Your task to perform on an android device: What is the recent news? Image 0: 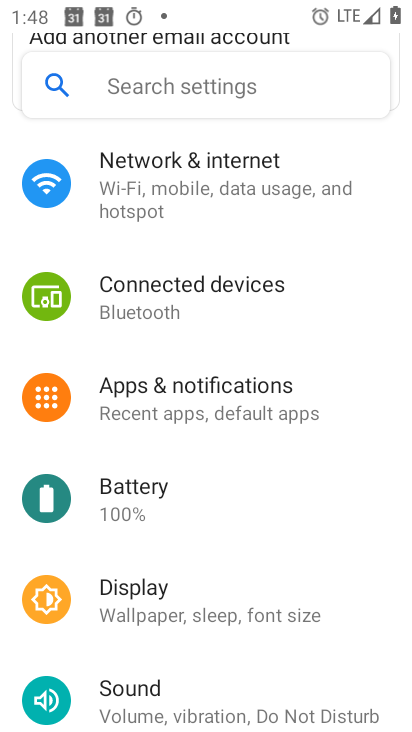
Step 0: press home button
Your task to perform on an android device: What is the recent news? Image 1: 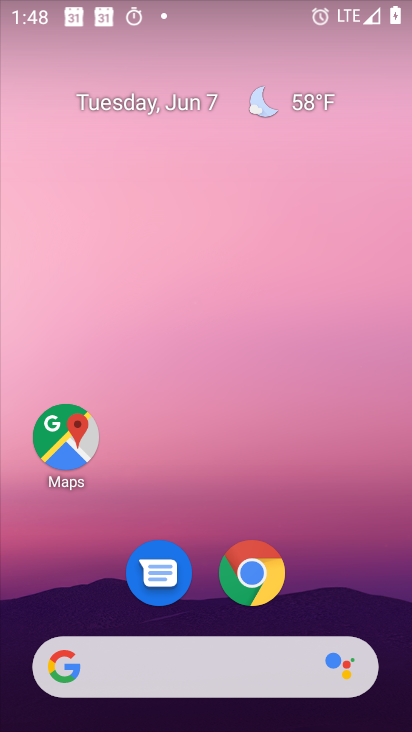
Step 1: click (250, 570)
Your task to perform on an android device: What is the recent news? Image 2: 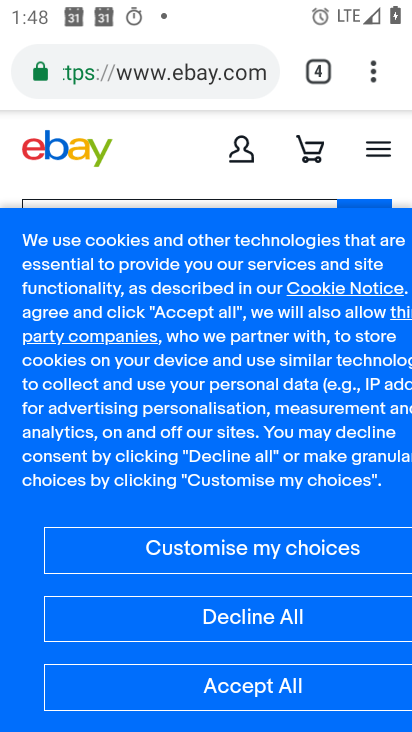
Step 2: click (137, 80)
Your task to perform on an android device: What is the recent news? Image 3: 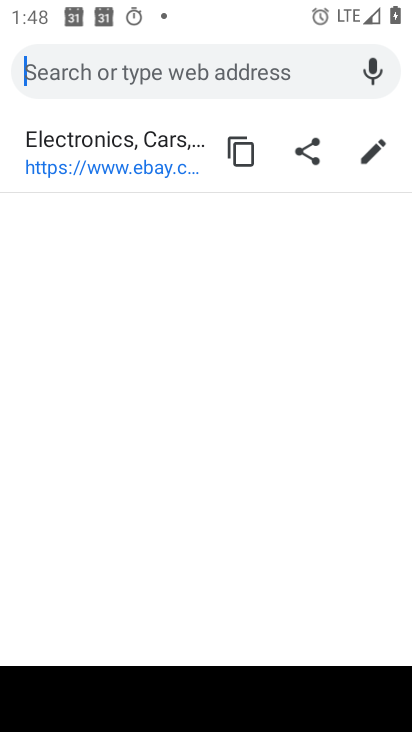
Step 3: type "What is the recent news?"
Your task to perform on an android device: What is the recent news? Image 4: 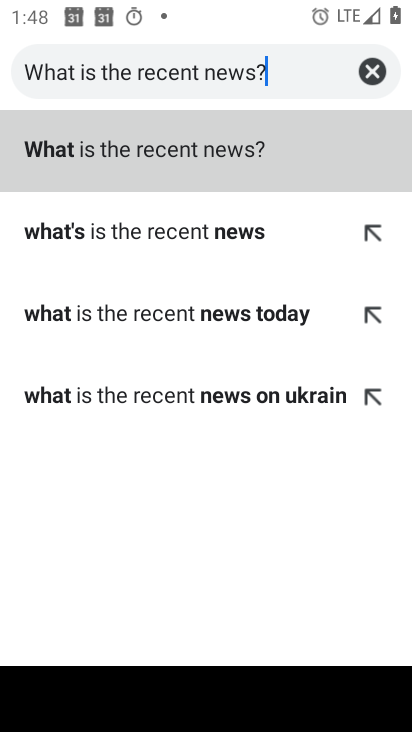
Step 4: click (151, 149)
Your task to perform on an android device: What is the recent news? Image 5: 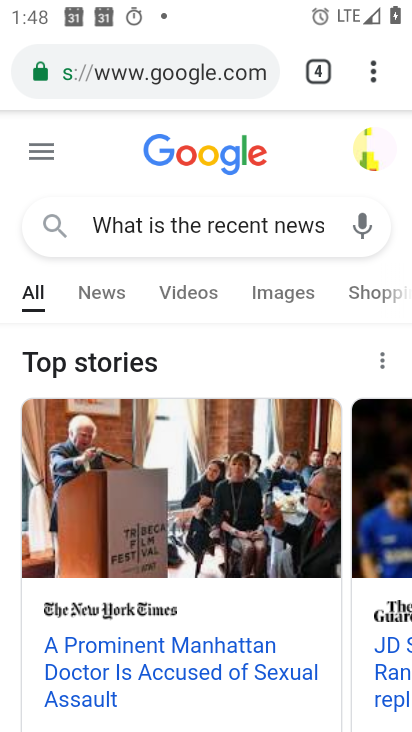
Step 5: click (111, 291)
Your task to perform on an android device: What is the recent news? Image 6: 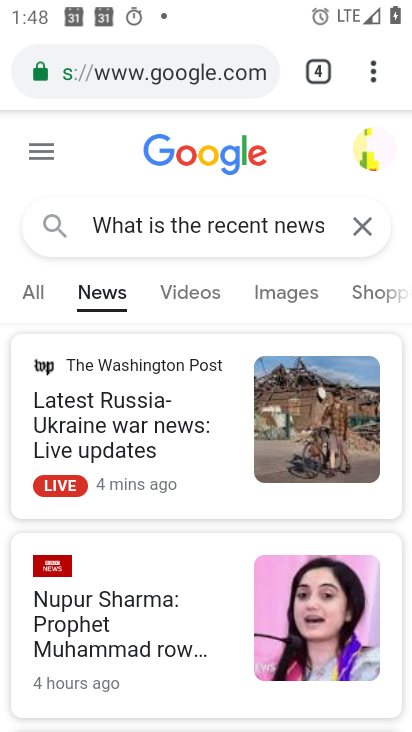
Step 6: task complete